Your task to perform on an android device: Open privacy settings Image 0: 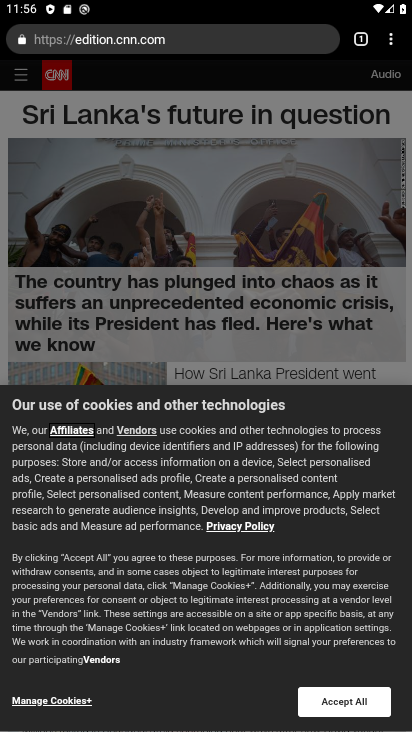
Step 0: press home button
Your task to perform on an android device: Open privacy settings Image 1: 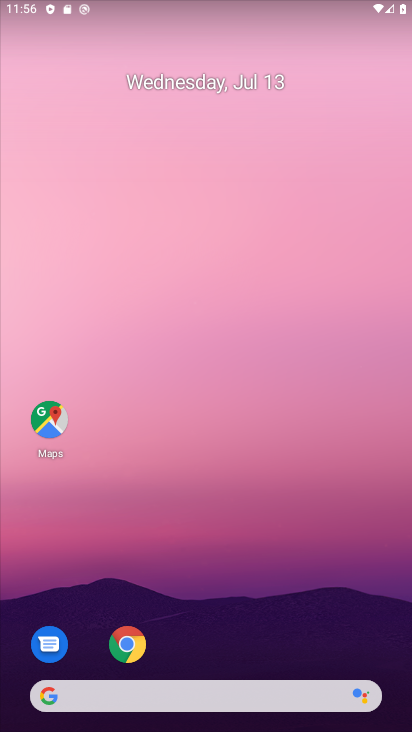
Step 1: drag from (206, 658) to (156, 216)
Your task to perform on an android device: Open privacy settings Image 2: 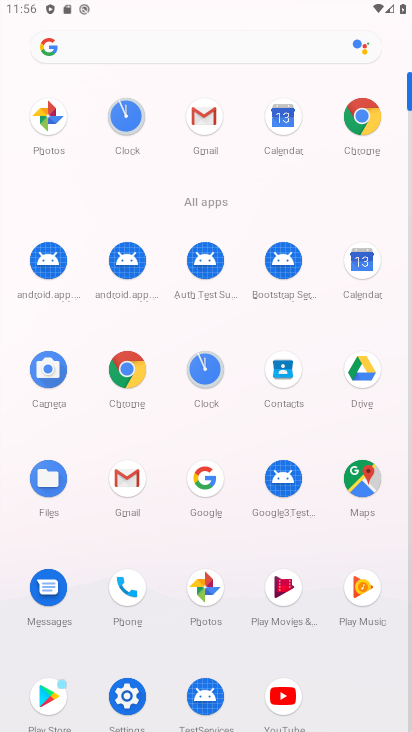
Step 2: click (117, 689)
Your task to perform on an android device: Open privacy settings Image 3: 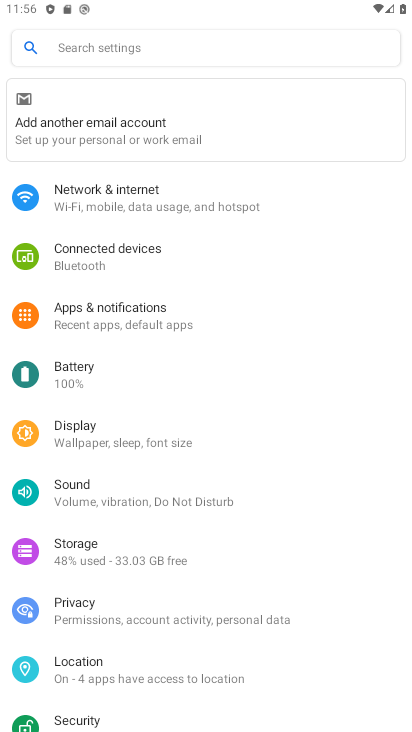
Step 3: click (86, 619)
Your task to perform on an android device: Open privacy settings Image 4: 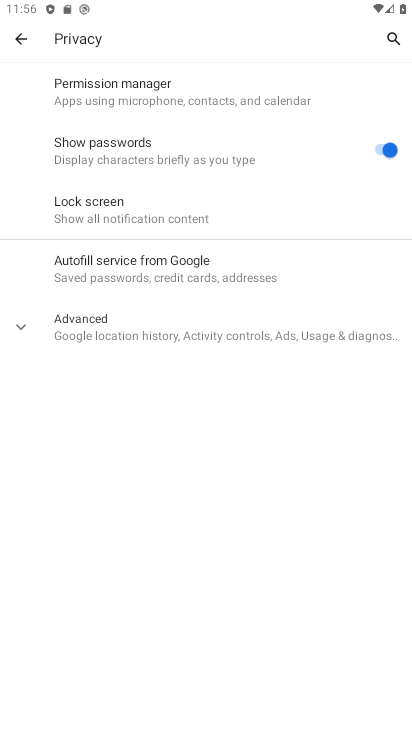
Step 4: task complete